Your task to perform on an android device: Open eBay Image 0: 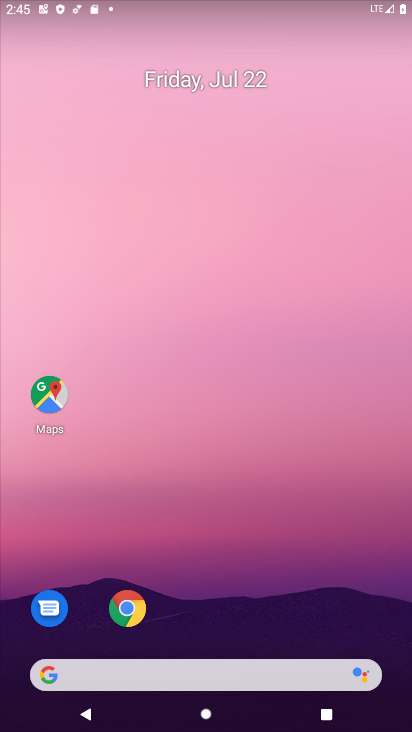
Step 0: click (117, 597)
Your task to perform on an android device: Open eBay Image 1: 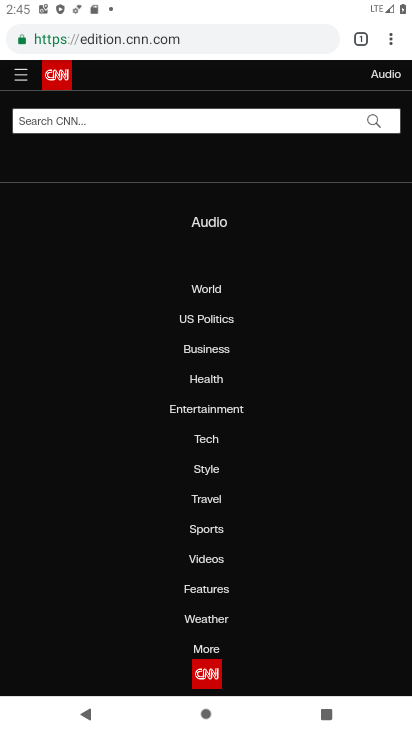
Step 1: click (361, 35)
Your task to perform on an android device: Open eBay Image 2: 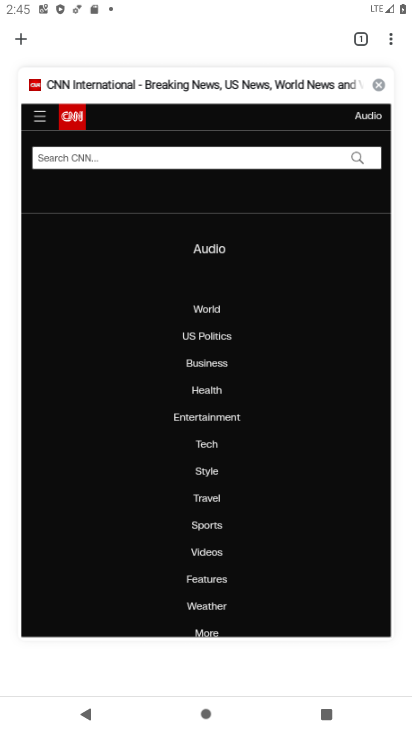
Step 2: click (380, 85)
Your task to perform on an android device: Open eBay Image 3: 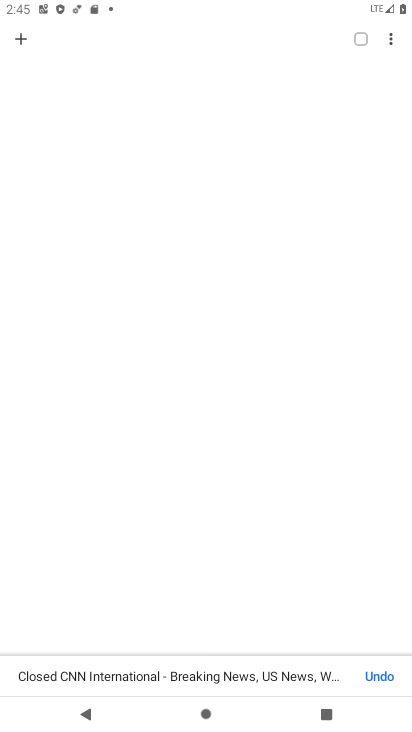
Step 3: click (17, 35)
Your task to perform on an android device: Open eBay Image 4: 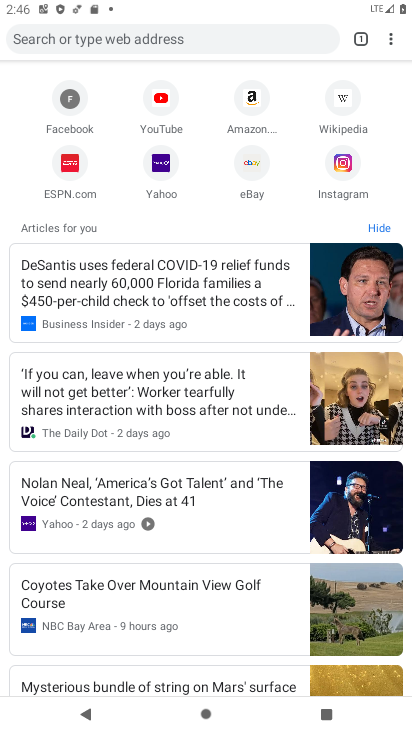
Step 4: click (245, 160)
Your task to perform on an android device: Open eBay Image 5: 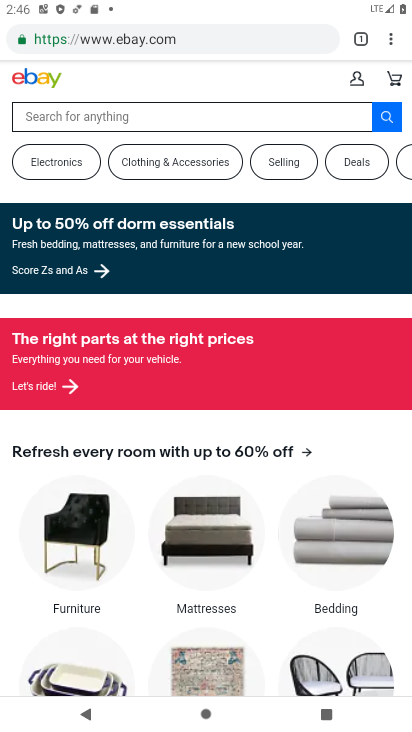
Step 5: task complete